Your task to perform on an android device: Clear all items from cart on target. Add "macbook pro 13 inch" to the cart on target Image 0: 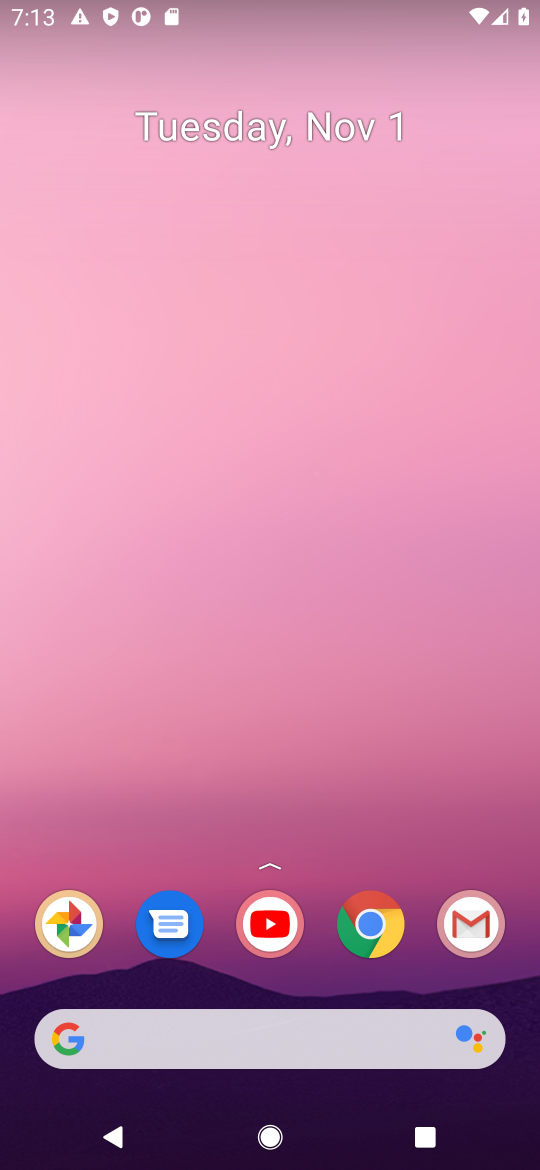
Step 0: press home button
Your task to perform on an android device: Clear all items from cart on target. Add "macbook pro 13 inch" to the cart on target Image 1: 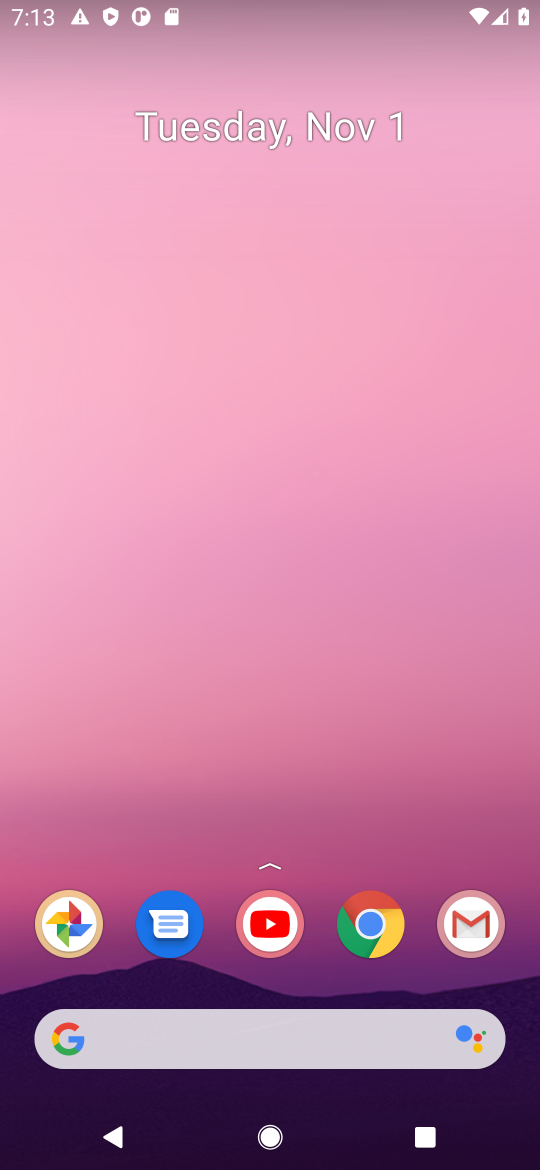
Step 1: click (163, 1036)
Your task to perform on an android device: Clear all items from cart on target. Add "macbook pro 13 inch" to the cart on target Image 2: 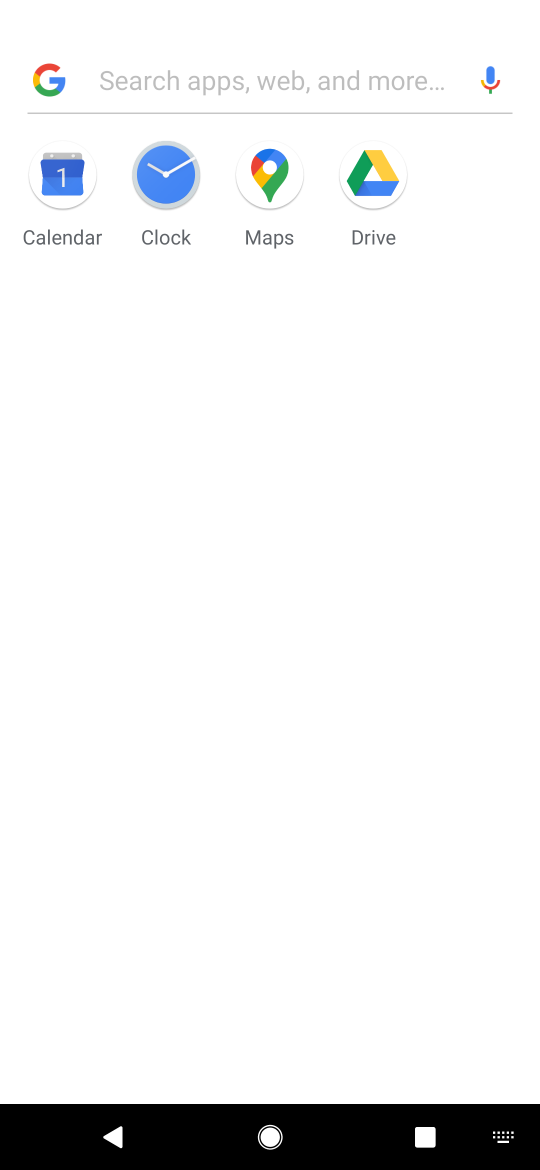
Step 2: press back button
Your task to perform on an android device: Clear all items from cart on target. Add "macbook pro 13 inch" to the cart on target Image 3: 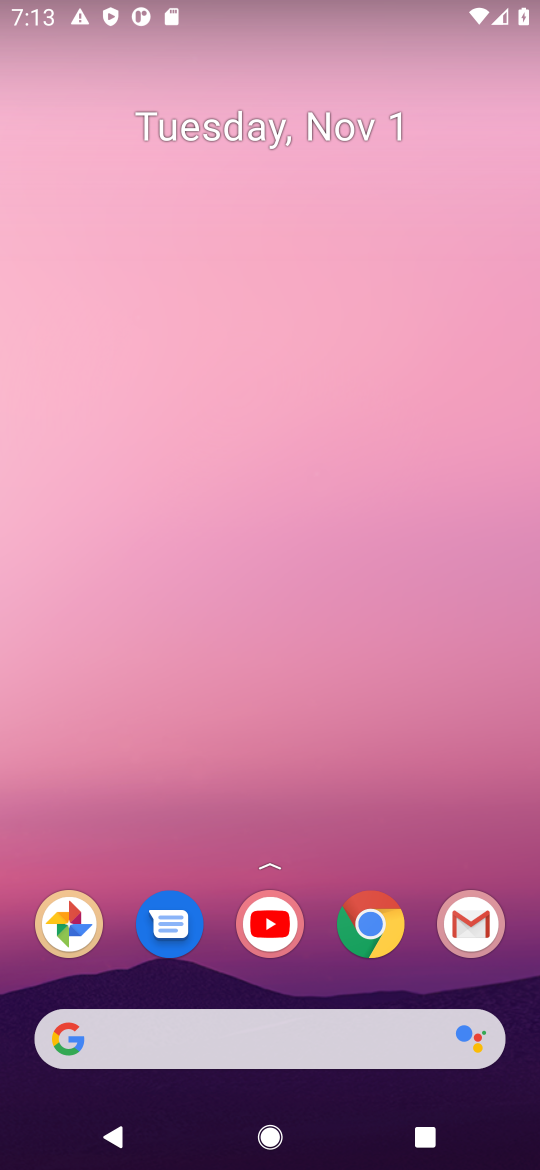
Step 3: drag from (416, 728) to (435, 104)
Your task to perform on an android device: Clear all items from cart on target. Add "macbook pro 13 inch" to the cart on target Image 4: 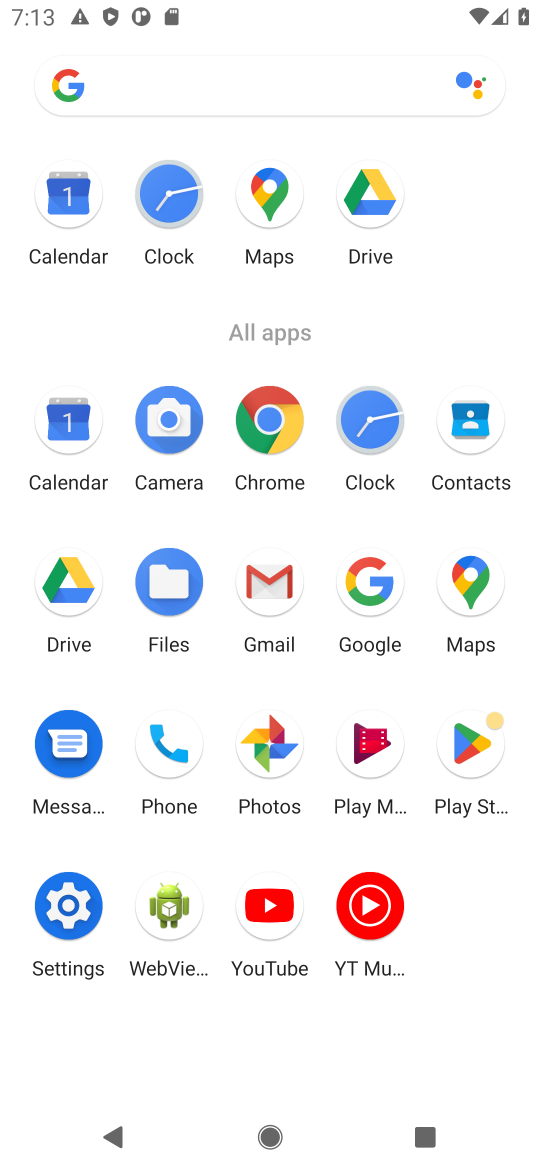
Step 4: click (357, 598)
Your task to perform on an android device: Clear all items from cart on target. Add "macbook pro 13 inch" to the cart on target Image 5: 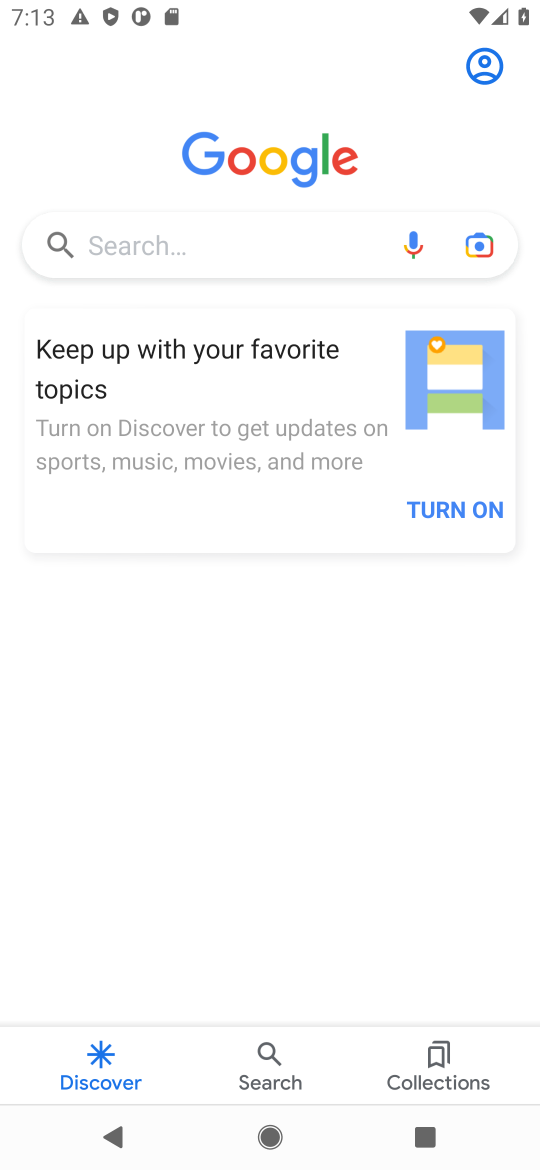
Step 5: click (141, 243)
Your task to perform on an android device: Clear all items from cart on target. Add "macbook pro 13 inch" to the cart on target Image 6: 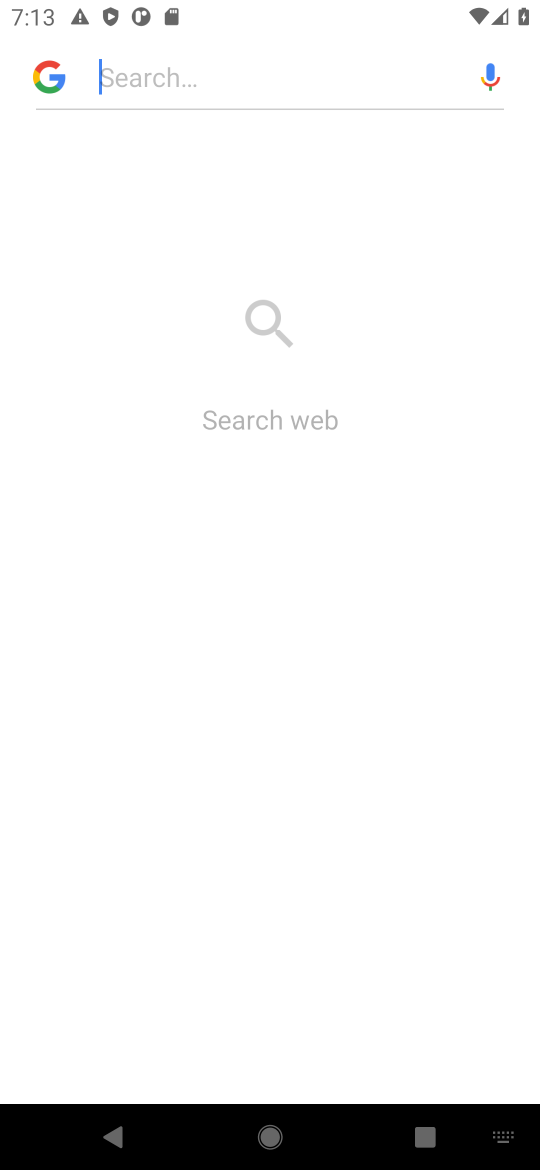
Step 6: type " target"
Your task to perform on an android device: Clear all items from cart on target. Add "macbook pro 13 inch" to the cart on target Image 7: 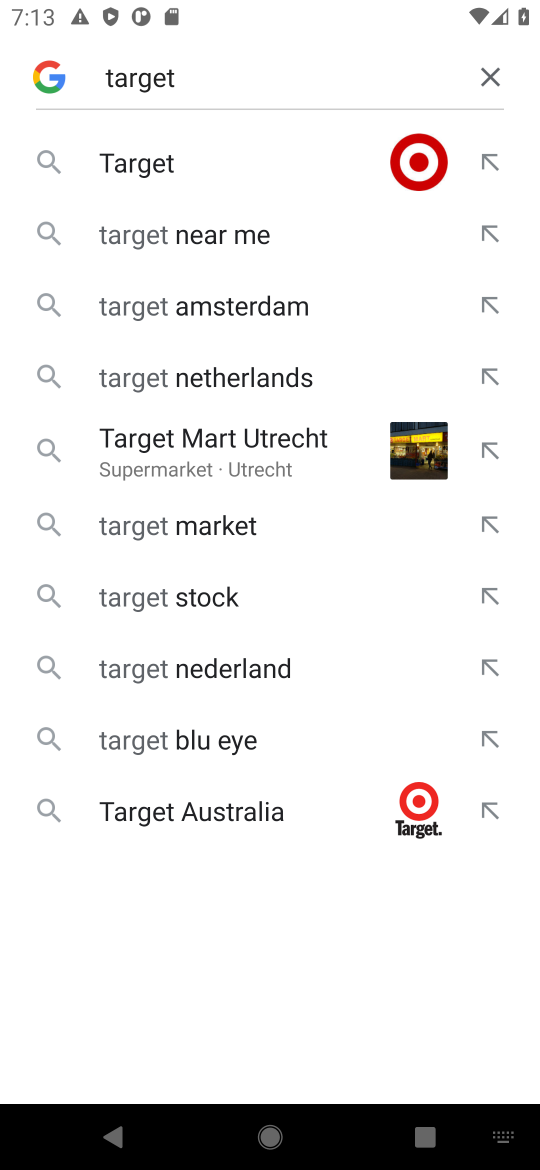
Step 7: press enter
Your task to perform on an android device: Clear all items from cart on target. Add "macbook pro 13 inch" to the cart on target Image 8: 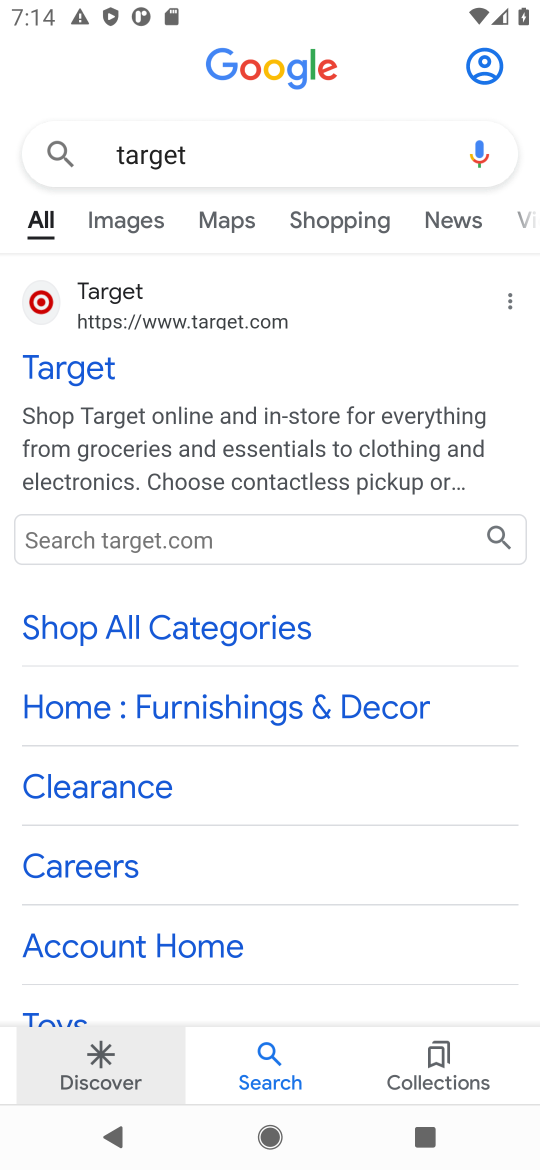
Step 8: click (87, 368)
Your task to perform on an android device: Clear all items from cart on target. Add "macbook pro 13 inch" to the cart on target Image 9: 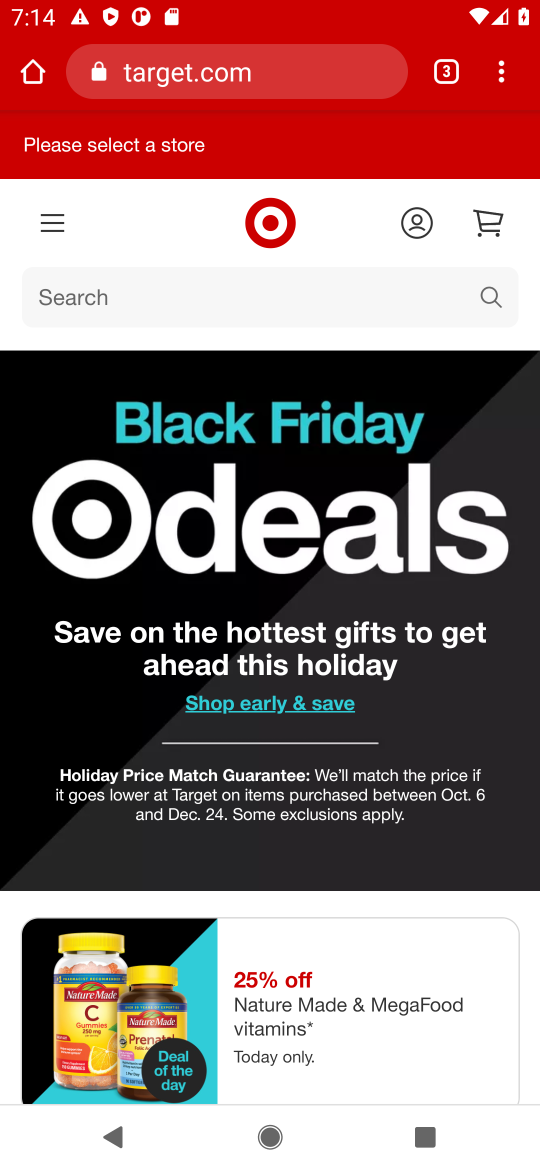
Step 9: click (493, 221)
Your task to perform on an android device: Clear all items from cart on target. Add "macbook pro 13 inch" to the cart on target Image 10: 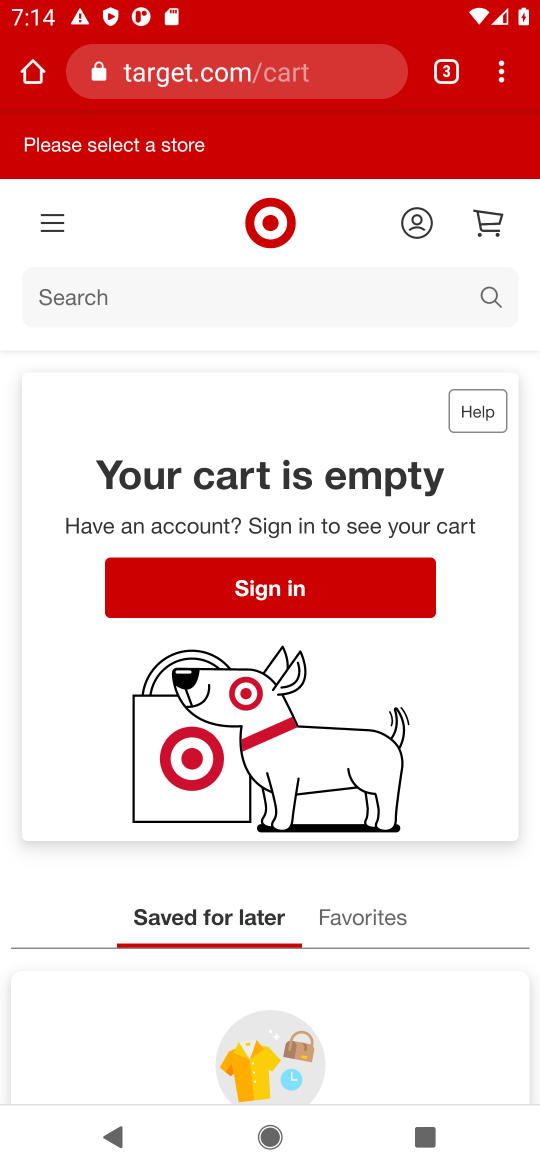
Step 10: click (110, 303)
Your task to perform on an android device: Clear all items from cart on target. Add "macbook pro 13 inch" to the cart on target Image 11: 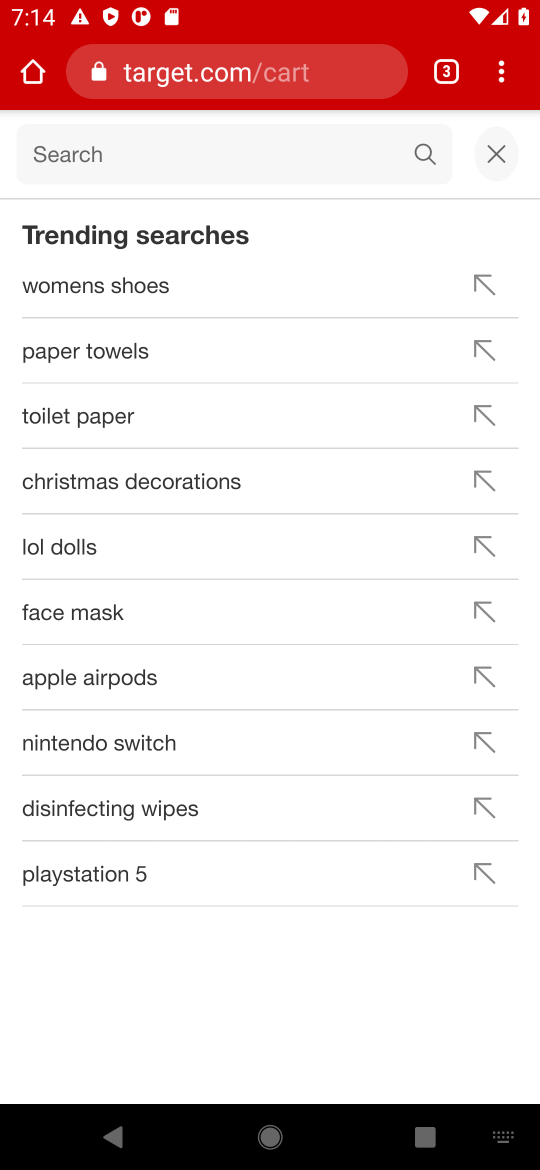
Step 11: press enter
Your task to perform on an android device: Clear all items from cart on target. Add "macbook pro 13 inch" to the cart on target Image 12: 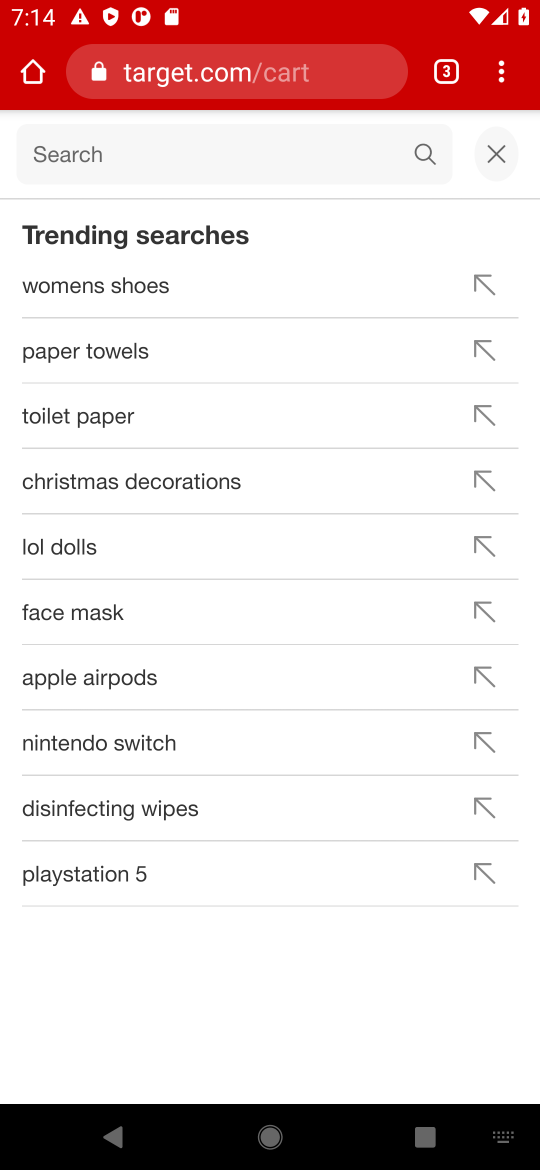
Step 12: type "macbook pro 13 inch"
Your task to perform on an android device: Clear all items from cart on target. Add "macbook pro 13 inch" to the cart on target Image 13: 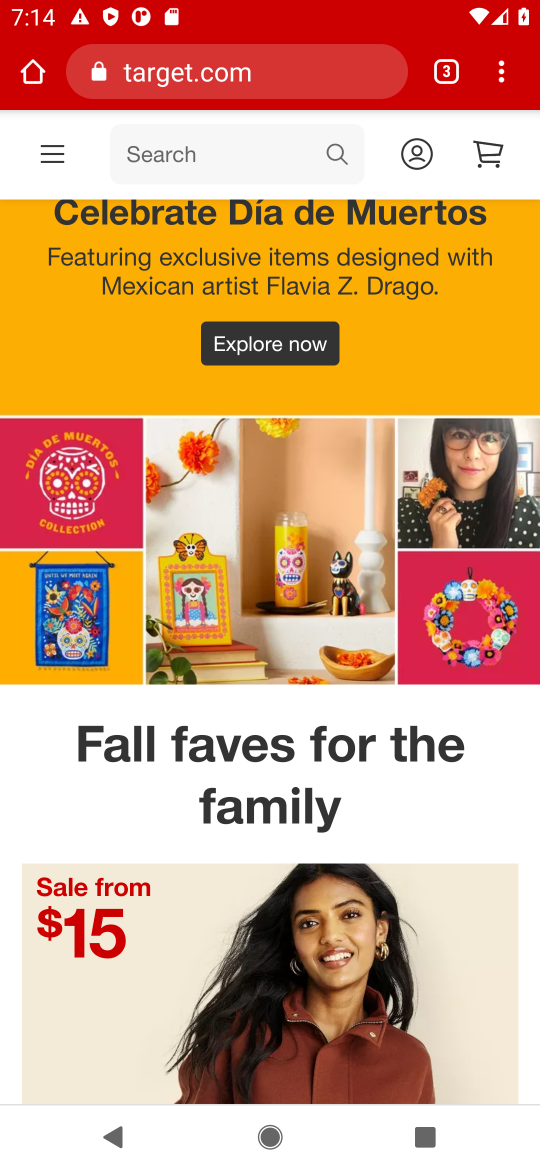
Step 13: click (144, 149)
Your task to perform on an android device: Clear all items from cart on target. Add "macbook pro 13 inch" to the cart on target Image 14: 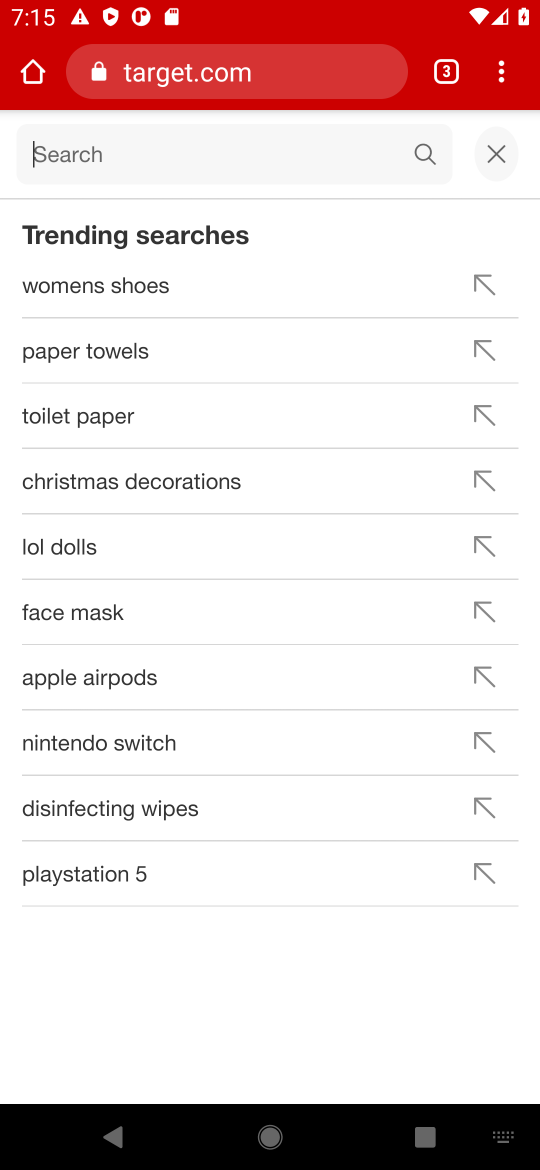
Step 14: type "macbook pro 13 inch"
Your task to perform on an android device: Clear all items from cart on target. Add "macbook pro 13 inch" to the cart on target Image 15: 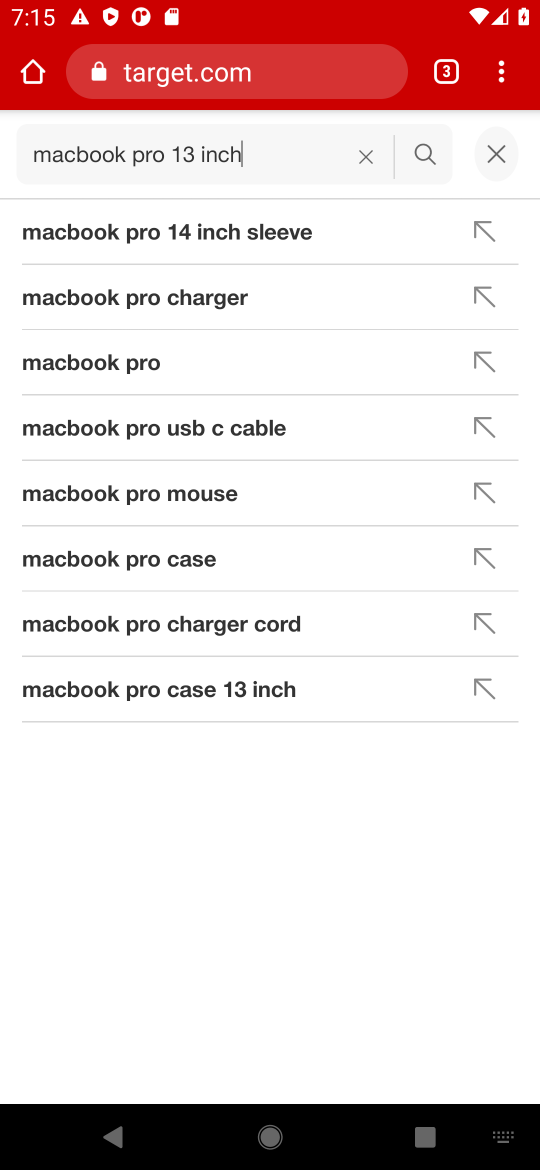
Step 15: click (420, 153)
Your task to perform on an android device: Clear all items from cart on target. Add "macbook pro 13 inch" to the cart on target Image 16: 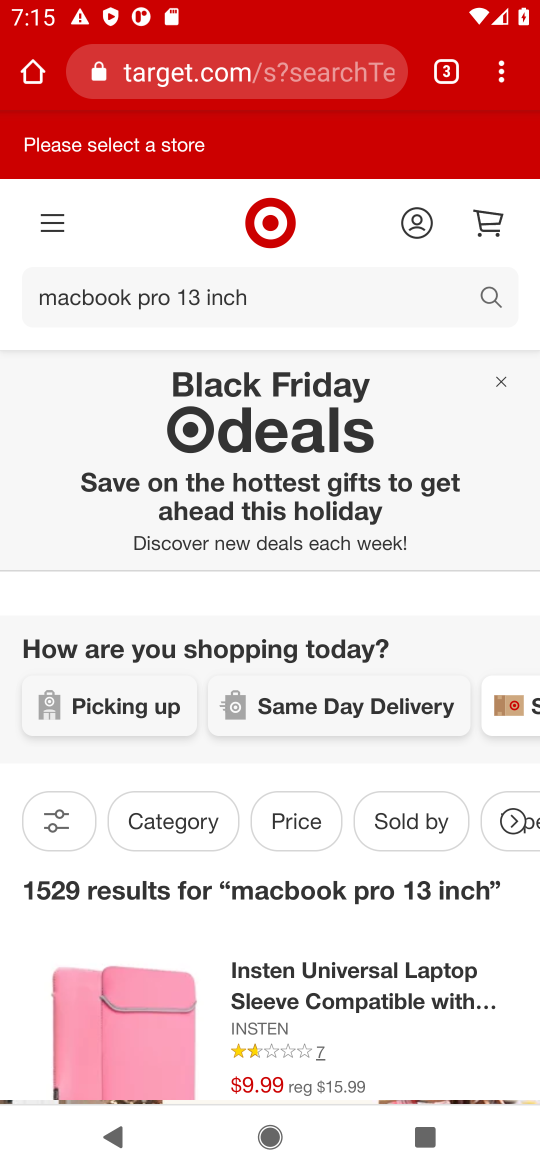
Step 16: task complete